Your task to perform on an android device: Go to privacy settings Image 0: 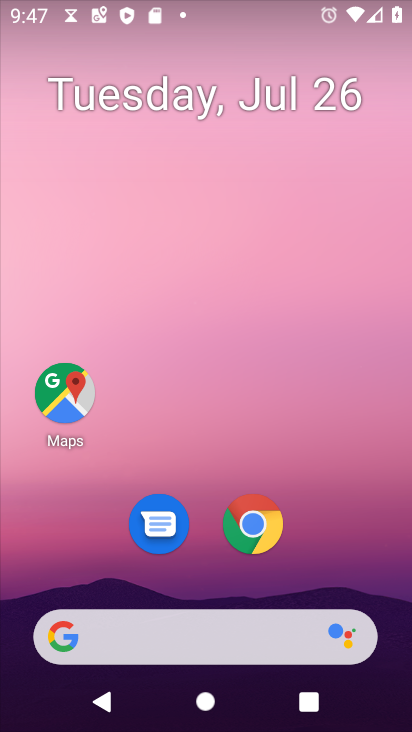
Step 0: drag from (205, 641) to (375, 54)
Your task to perform on an android device: Go to privacy settings Image 1: 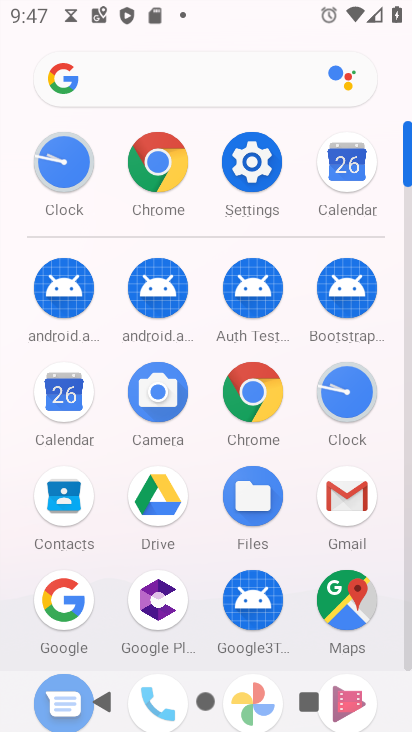
Step 1: click (257, 166)
Your task to perform on an android device: Go to privacy settings Image 2: 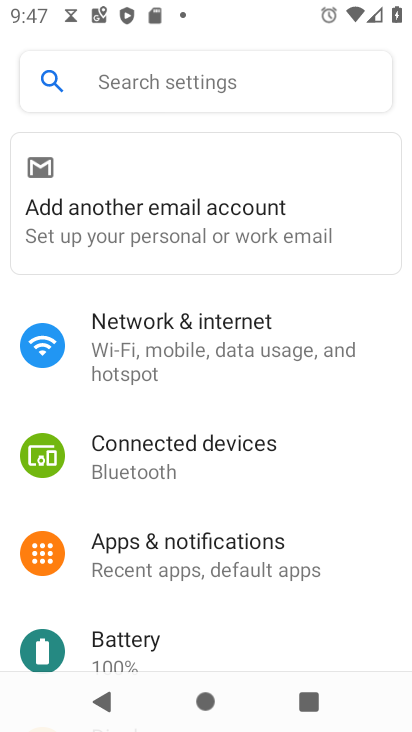
Step 2: drag from (223, 615) to (352, 184)
Your task to perform on an android device: Go to privacy settings Image 3: 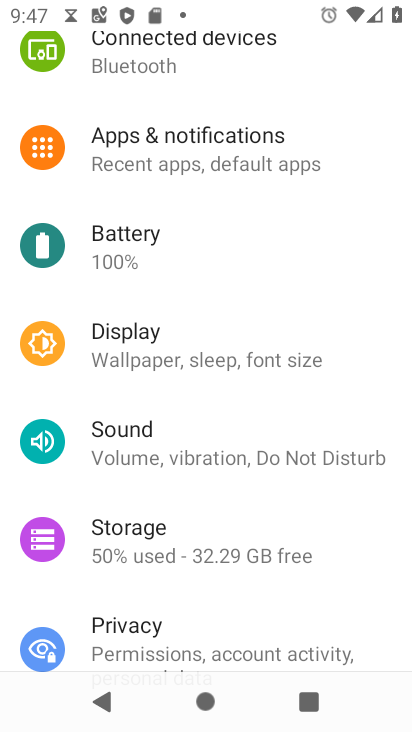
Step 3: click (149, 638)
Your task to perform on an android device: Go to privacy settings Image 4: 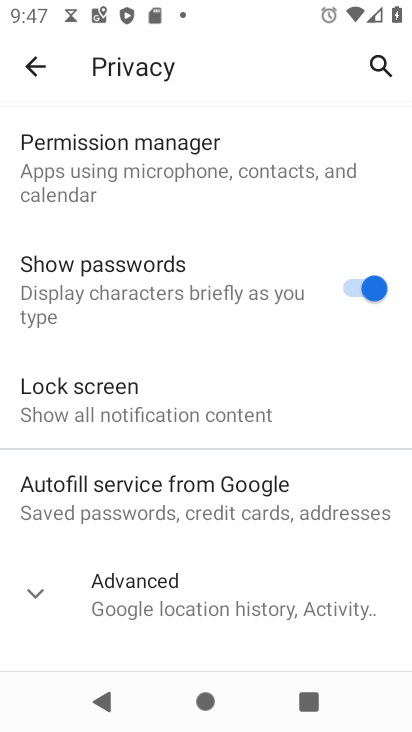
Step 4: task complete